Your task to perform on an android device: change timer sound Image 0: 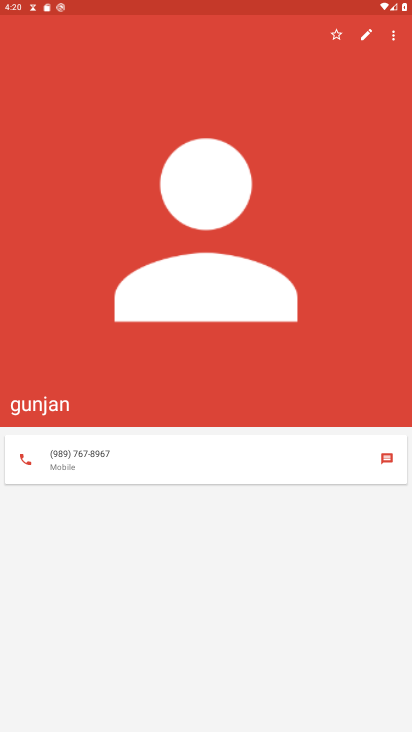
Step 0: press home button
Your task to perform on an android device: change timer sound Image 1: 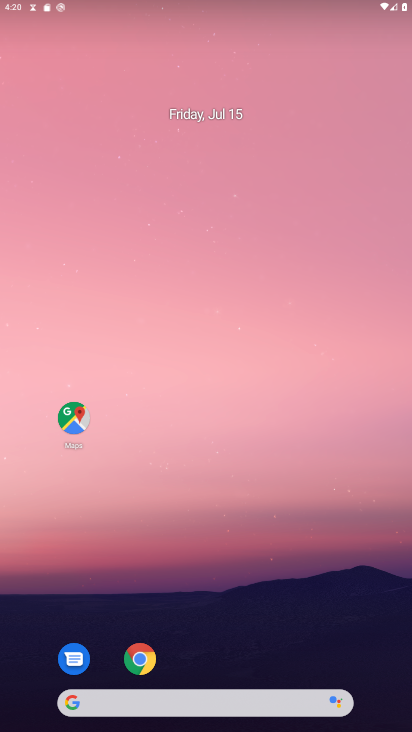
Step 1: drag from (254, 673) to (290, 15)
Your task to perform on an android device: change timer sound Image 2: 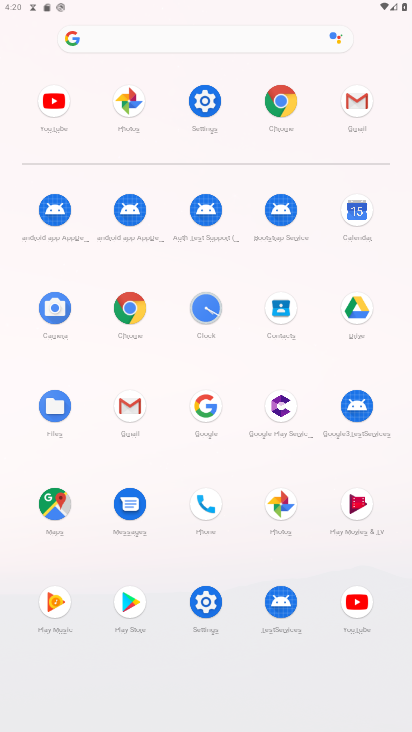
Step 2: click (213, 316)
Your task to perform on an android device: change timer sound Image 3: 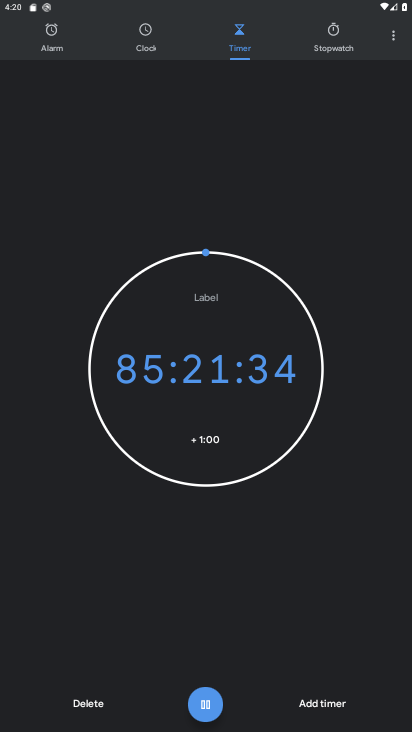
Step 3: click (330, 40)
Your task to perform on an android device: change timer sound Image 4: 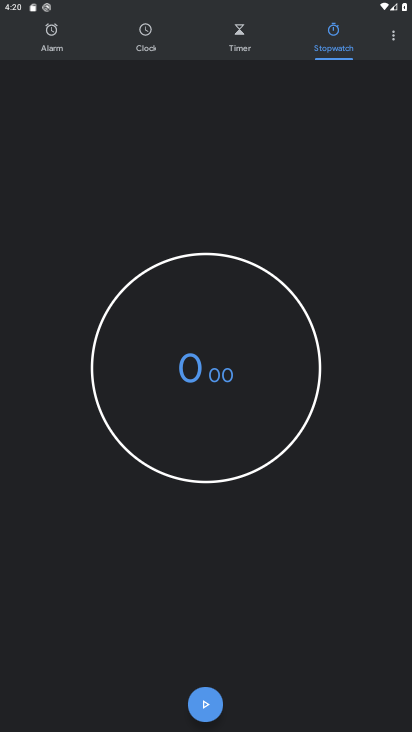
Step 4: click (398, 32)
Your task to perform on an android device: change timer sound Image 5: 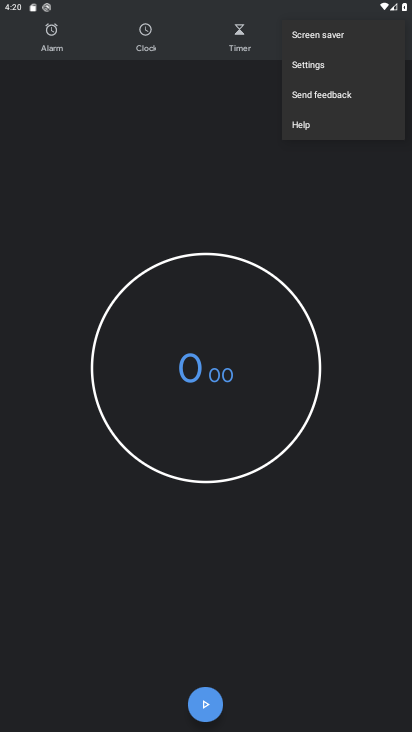
Step 5: click (324, 68)
Your task to perform on an android device: change timer sound Image 6: 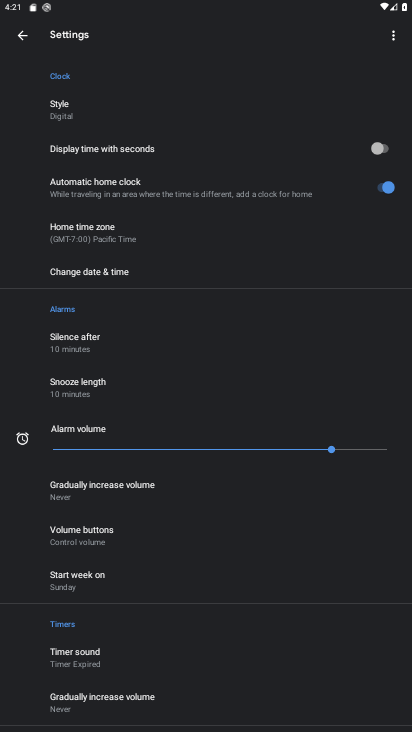
Step 6: drag from (171, 660) to (207, 379)
Your task to perform on an android device: change timer sound Image 7: 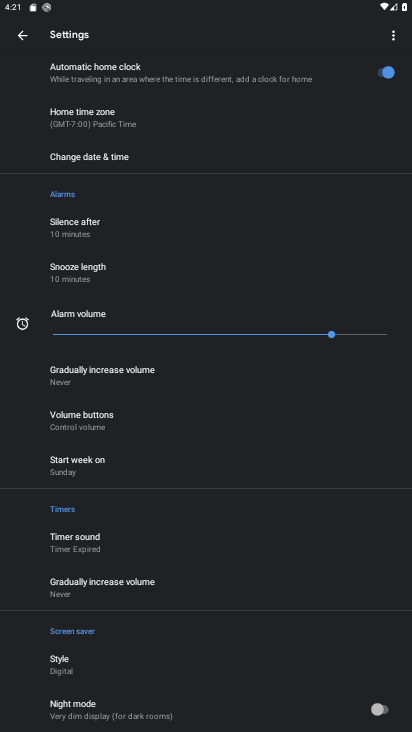
Step 7: click (109, 577)
Your task to perform on an android device: change timer sound Image 8: 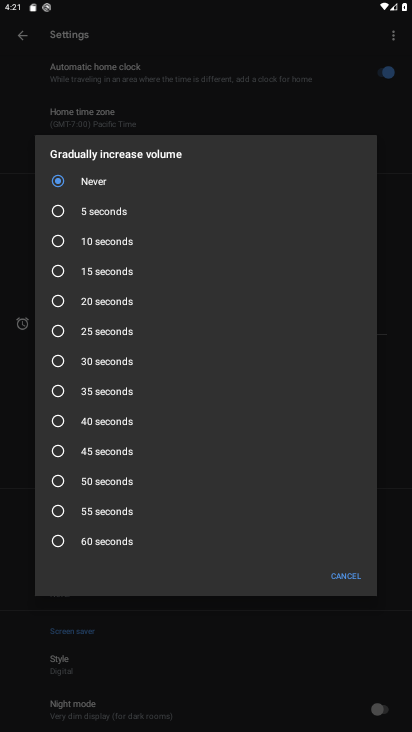
Step 8: click (87, 537)
Your task to perform on an android device: change timer sound Image 9: 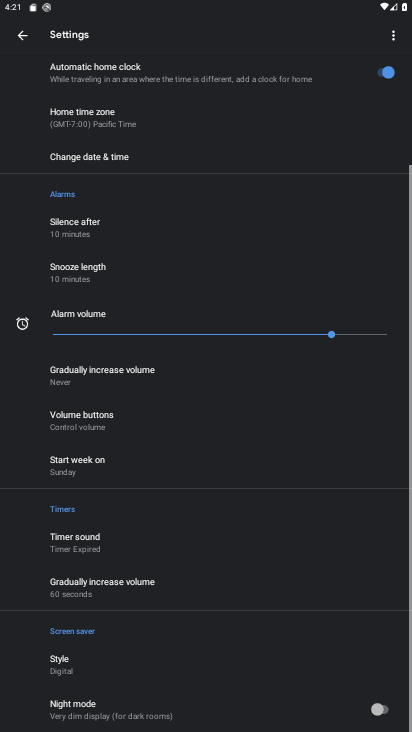
Step 9: click (104, 543)
Your task to perform on an android device: change timer sound Image 10: 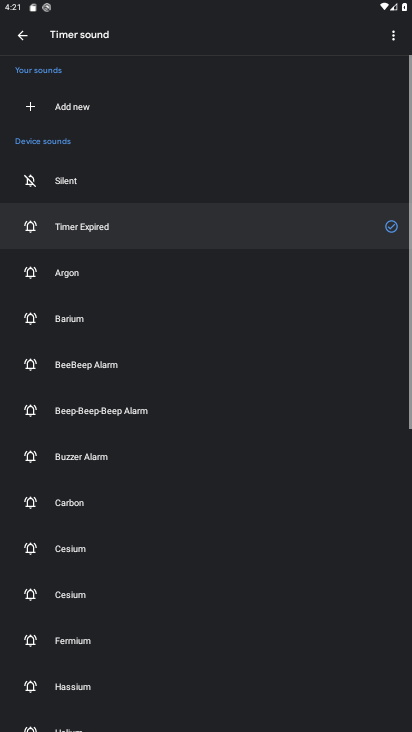
Step 10: click (83, 327)
Your task to perform on an android device: change timer sound Image 11: 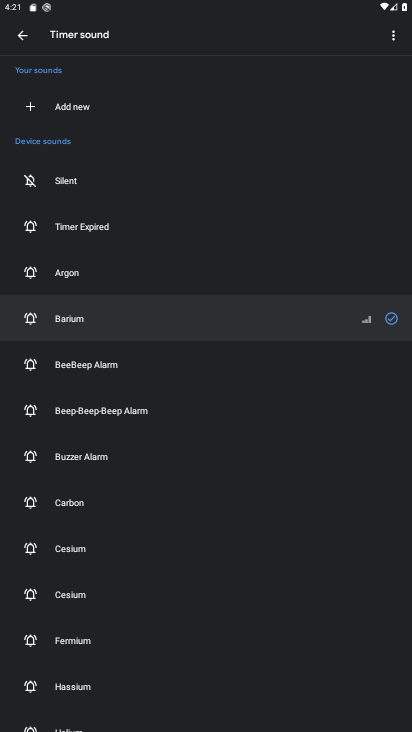
Step 11: task complete